Your task to perform on an android device: all mails in gmail Image 0: 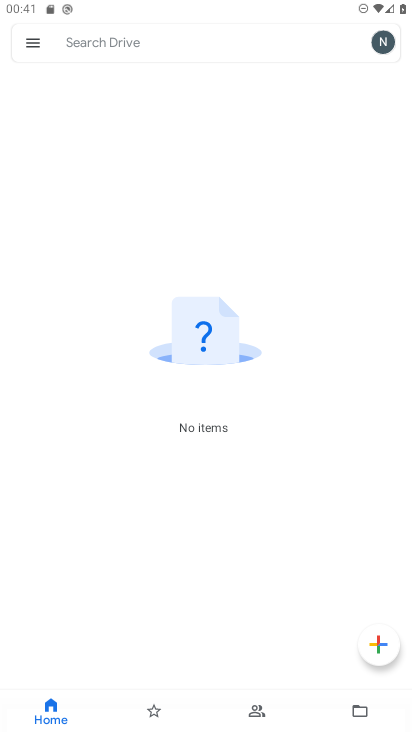
Step 0: click (18, 34)
Your task to perform on an android device: all mails in gmail Image 1: 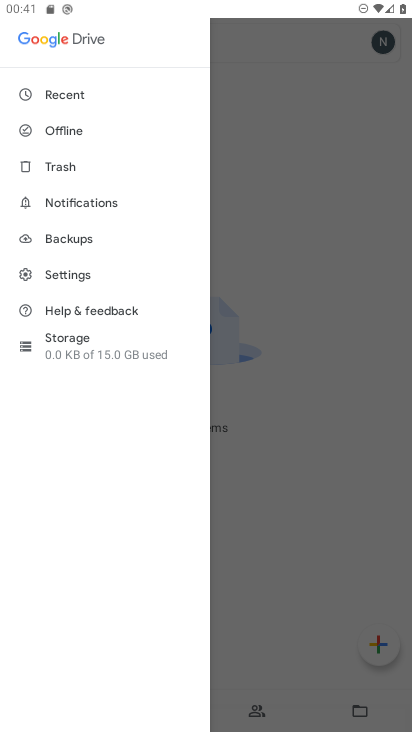
Step 1: press home button
Your task to perform on an android device: all mails in gmail Image 2: 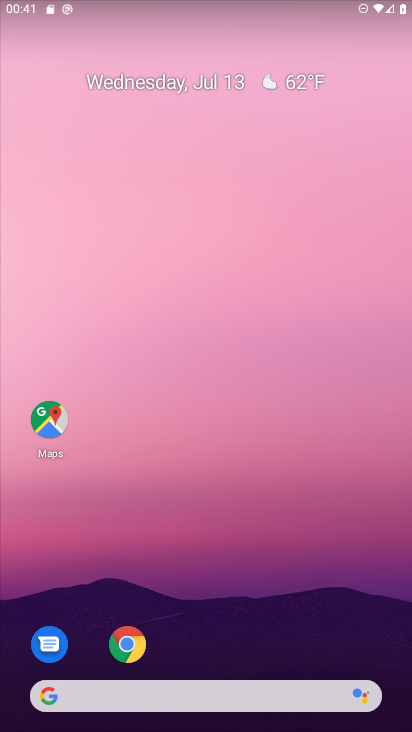
Step 2: drag from (193, 651) to (145, 174)
Your task to perform on an android device: all mails in gmail Image 3: 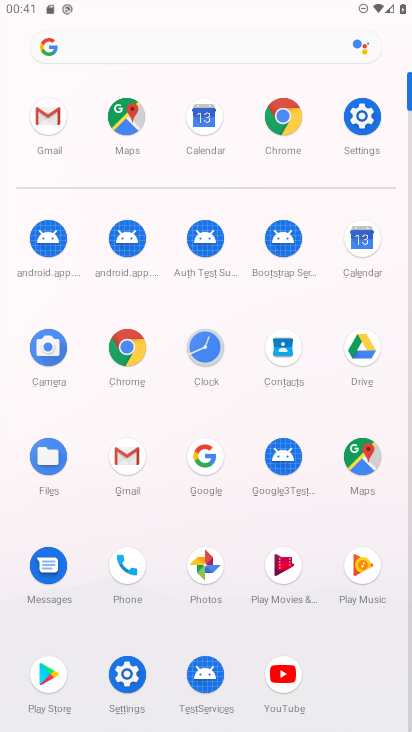
Step 3: click (129, 455)
Your task to perform on an android device: all mails in gmail Image 4: 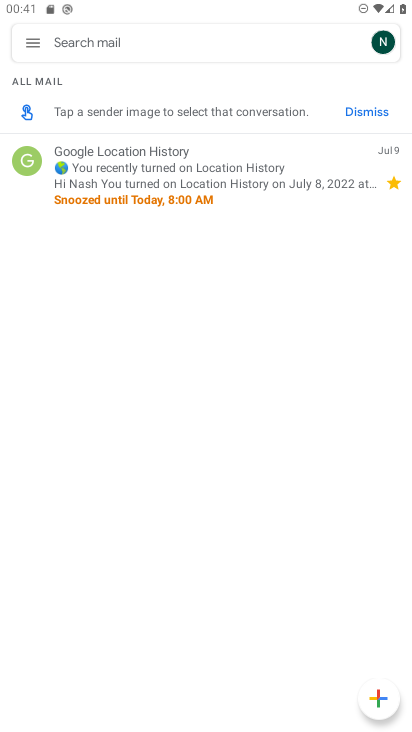
Step 4: task complete